Your task to perform on an android device: turn off airplane mode Image 0: 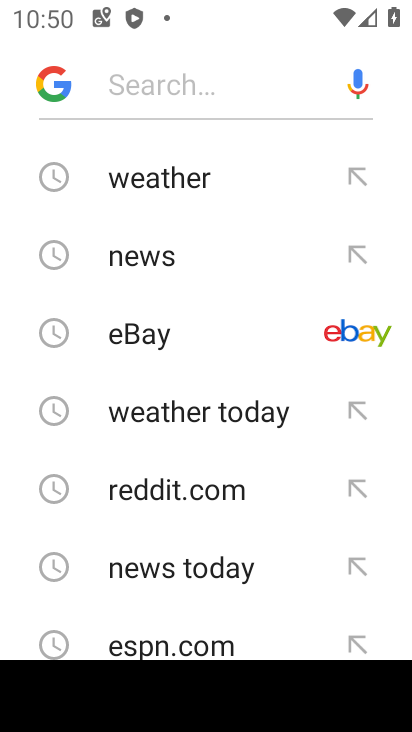
Step 0: press home button
Your task to perform on an android device: turn off airplane mode Image 1: 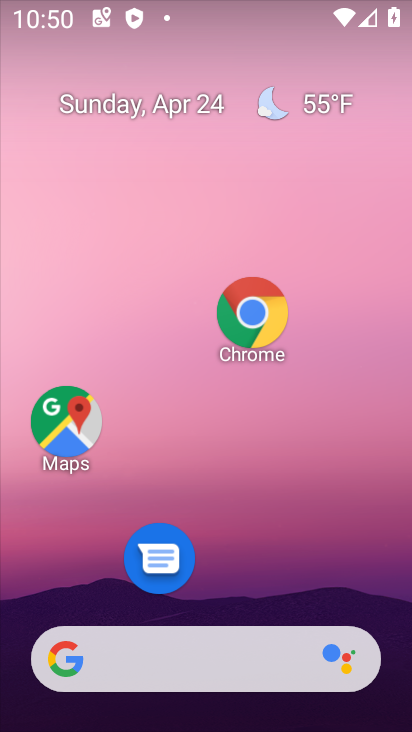
Step 1: drag from (328, 709) to (264, 18)
Your task to perform on an android device: turn off airplane mode Image 2: 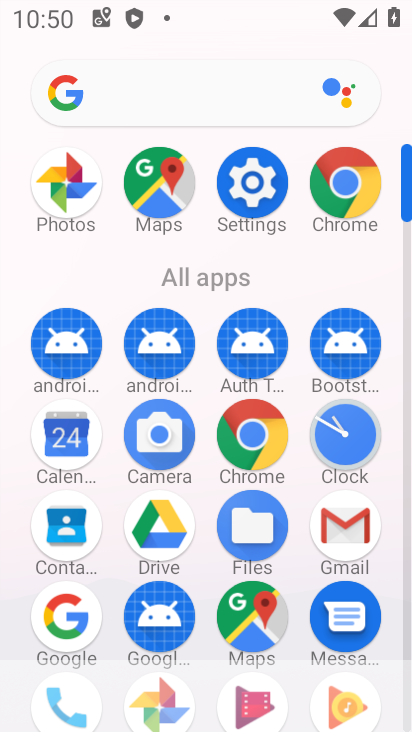
Step 2: click (252, 179)
Your task to perform on an android device: turn off airplane mode Image 3: 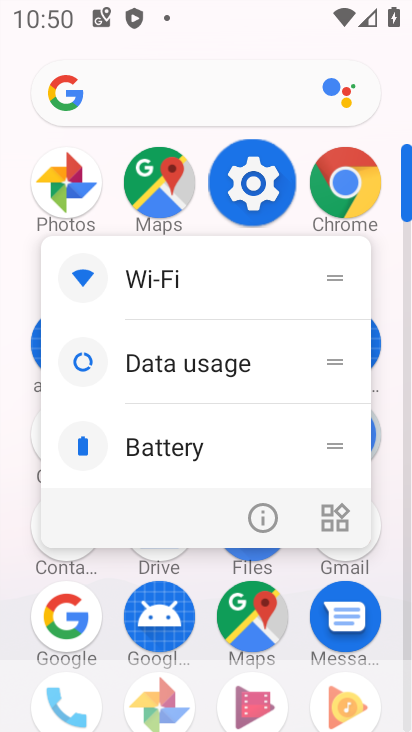
Step 3: click (253, 178)
Your task to perform on an android device: turn off airplane mode Image 4: 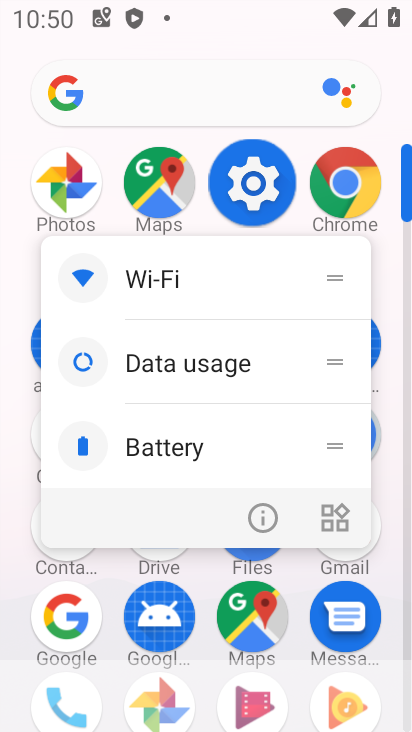
Step 4: click (255, 179)
Your task to perform on an android device: turn off airplane mode Image 5: 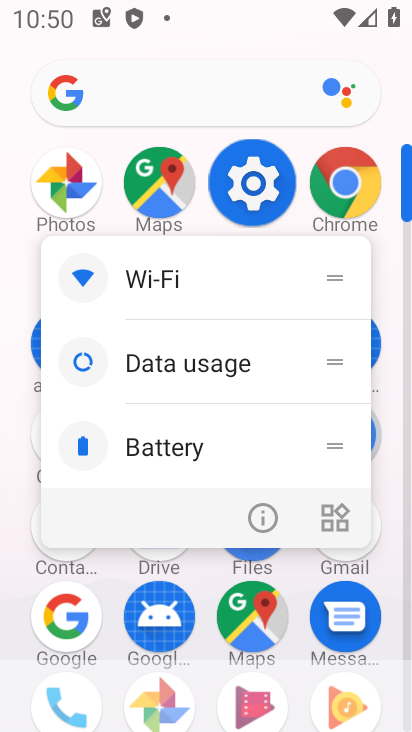
Step 5: click (255, 180)
Your task to perform on an android device: turn off airplane mode Image 6: 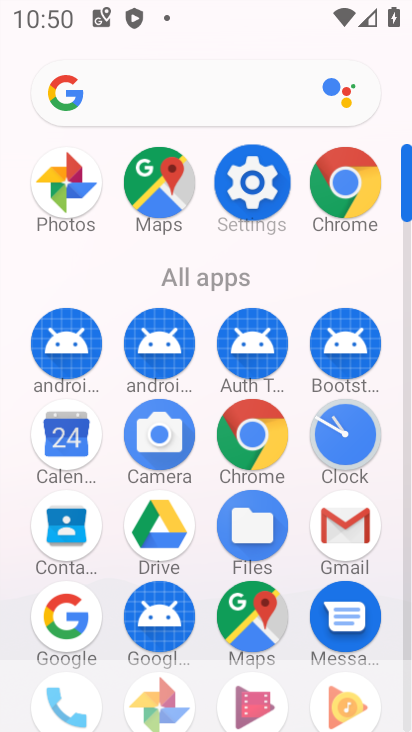
Step 6: click (255, 180)
Your task to perform on an android device: turn off airplane mode Image 7: 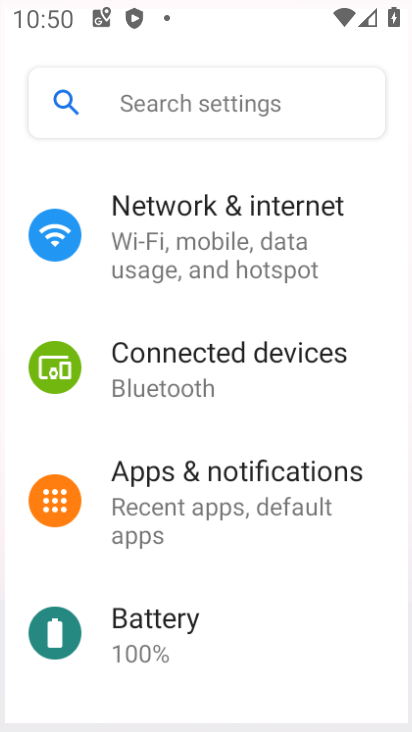
Step 7: click (255, 180)
Your task to perform on an android device: turn off airplane mode Image 8: 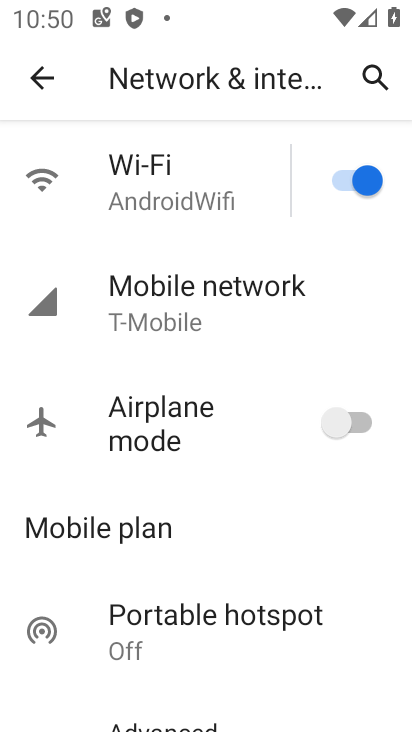
Step 8: task complete